Your task to perform on an android device: turn off priority inbox in the gmail app Image 0: 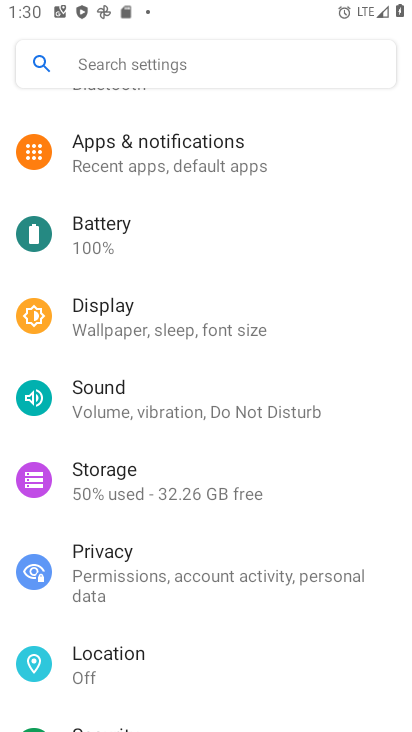
Step 0: press home button
Your task to perform on an android device: turn off priority inbox in the gmail app Image 1: 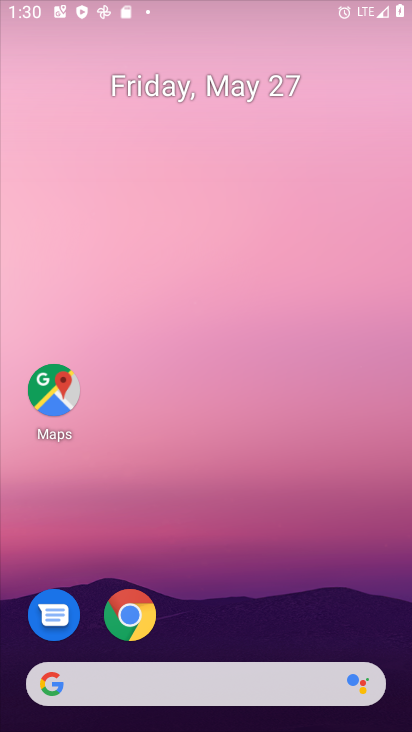
Step 1: drag from (170, 675) to (320, 1)
Your task to perform on an android device: turn off priority inbox in the gmail app Image 2: 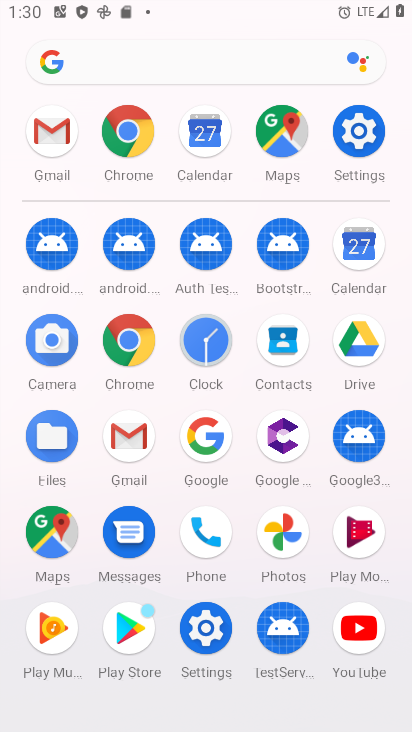
Step 2: click (132, 445)
Your task to perform on an android device: turn off priority inbox in the gmail app Image 3: 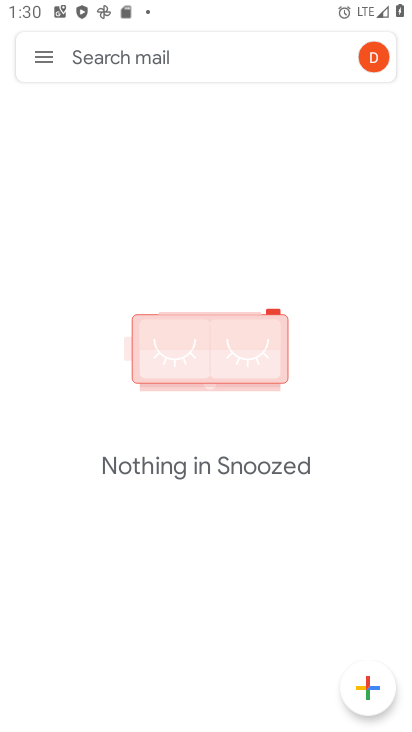
Step 3: click (41, 53)
Your task to perform on an android device: turn off priority inbox in the gmail app Image 4: 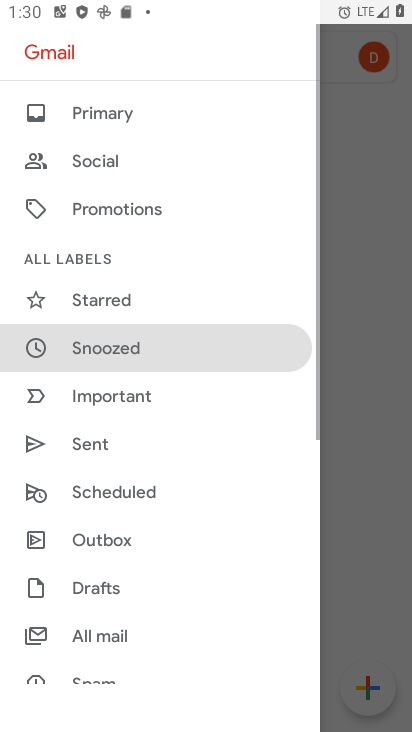
Step 4: drag from (163, 662) to (241, 15)
Your task to perform on an android device: turn off priority inbox in the gmail app Image 5: 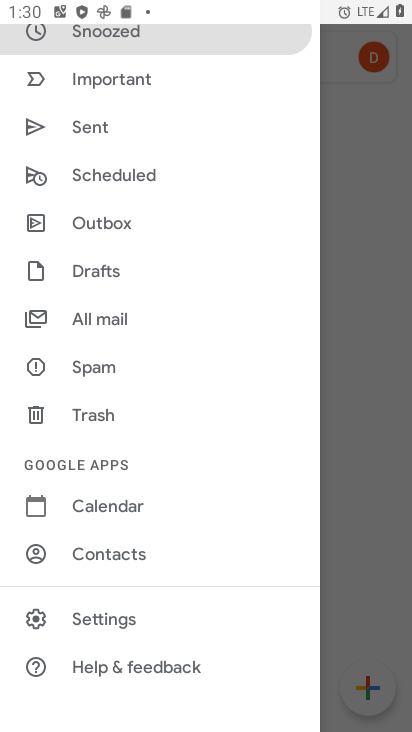
Step 5: click (126, 613)
Your task to perform on an android device: turn off priority inbox in the gmail app Image 6: 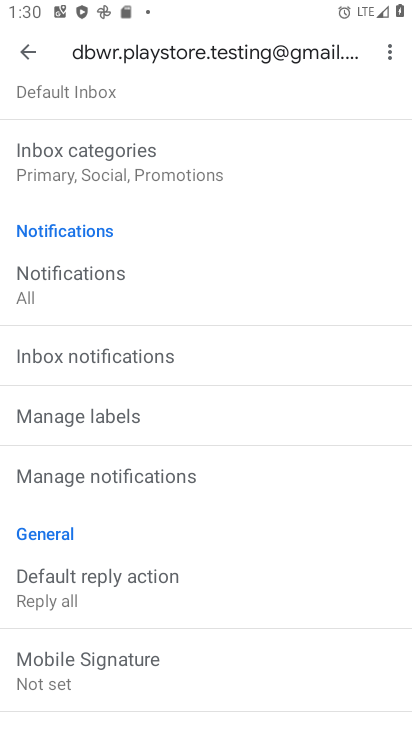
Step 6: drag from (159, 203) to (158, 721)
Your task to perform on an android device: turn off priority inbox in the gmail app Image 7: 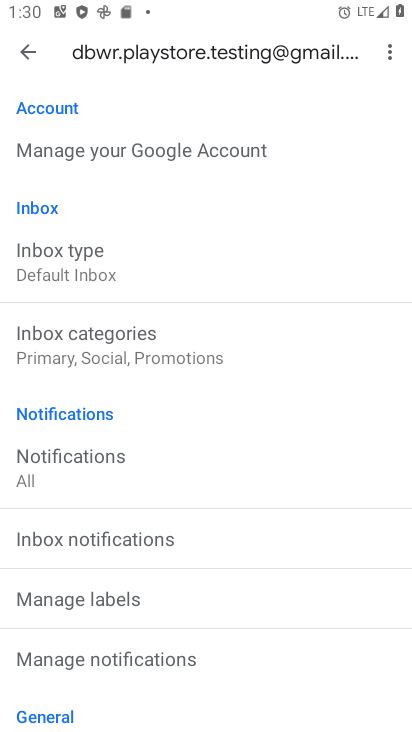
Step 7: click (116, 263)
Your task to perform on an android device: turn off priority inbox in the gmail app Image 8: 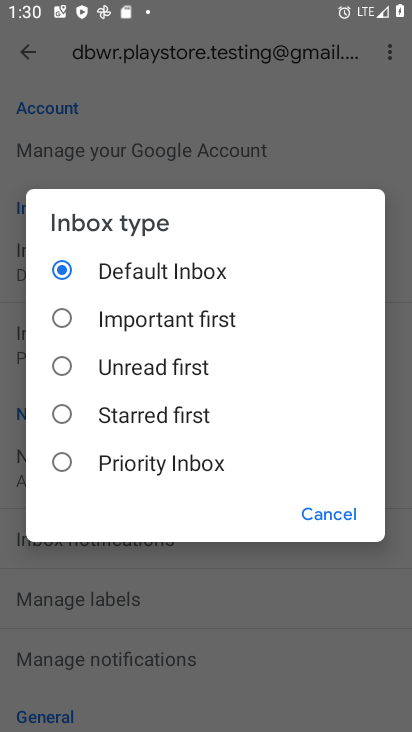
Step 8: task complete